Your task to perform on an android device: empty trash in google photos Image 0: 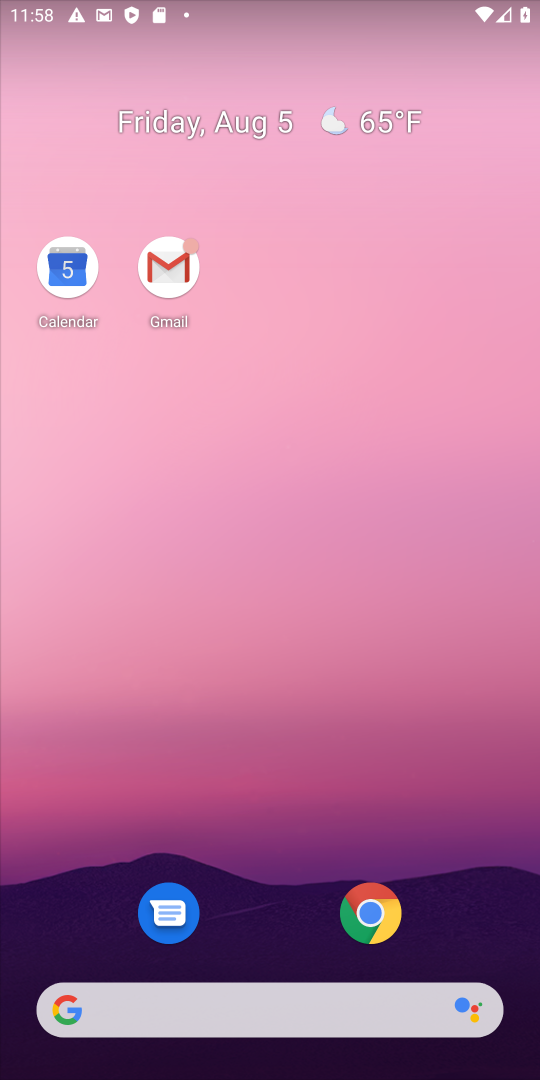
Step 0: click (490, 22)
Your task to perform on an android device: empty trash in google photos Image 1: 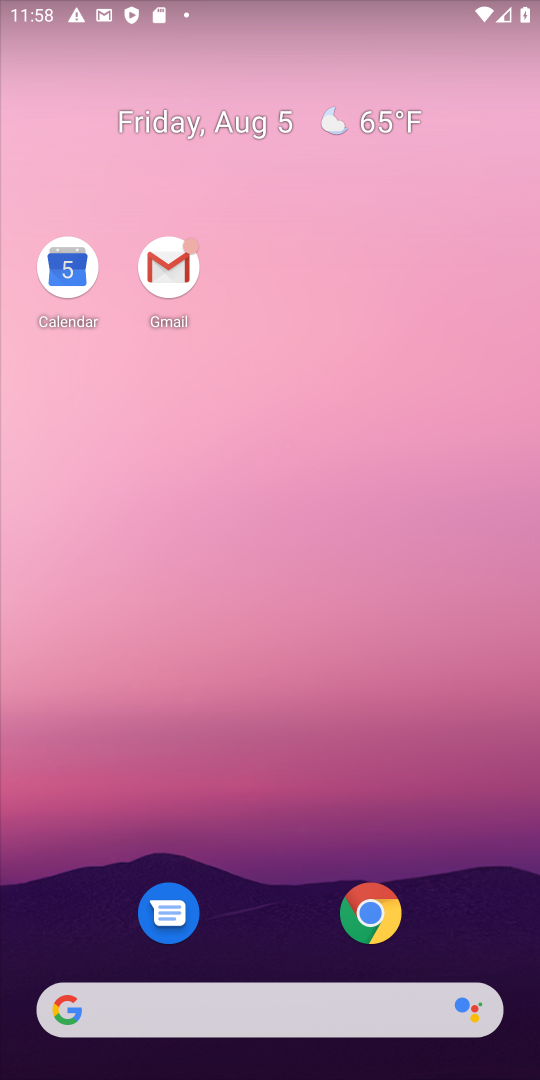
Step 1: drag from (464, 843) to (482, 71)
Your task to perform on an android device: empty trash in google photos Image 2: 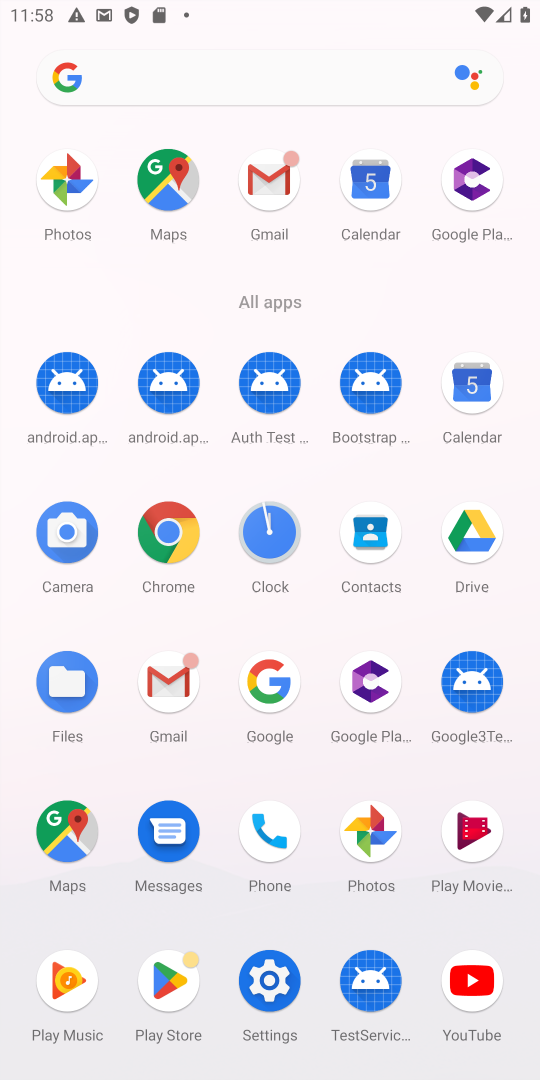
Step 2: drag from (378, 842) to (310, 304)
Your task to perform on an android device: empty trash in google photos Image 3: 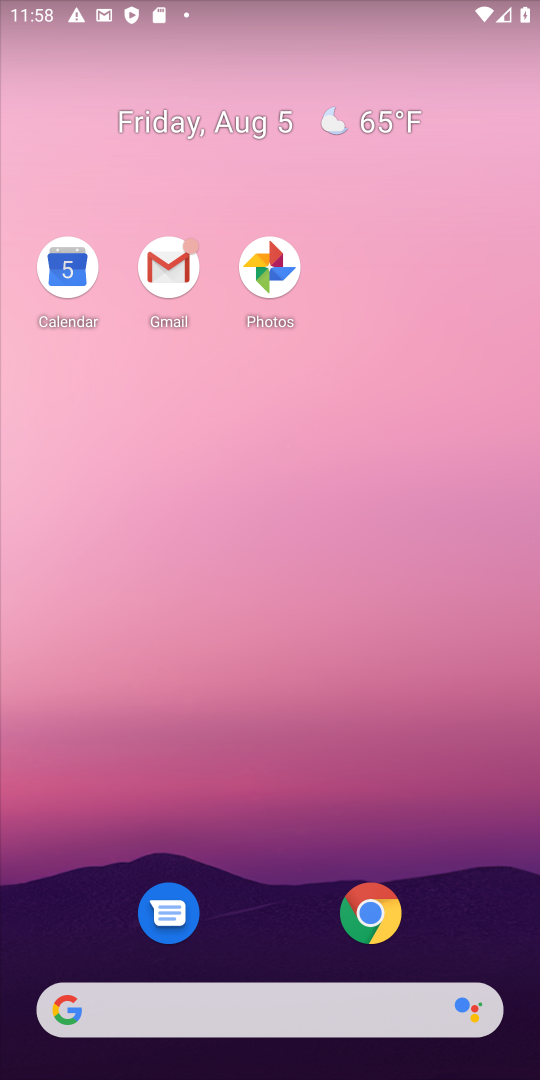
Step 3: click (285, 275)
Your task to perform on an android device: empty trash in google photos Image 4: 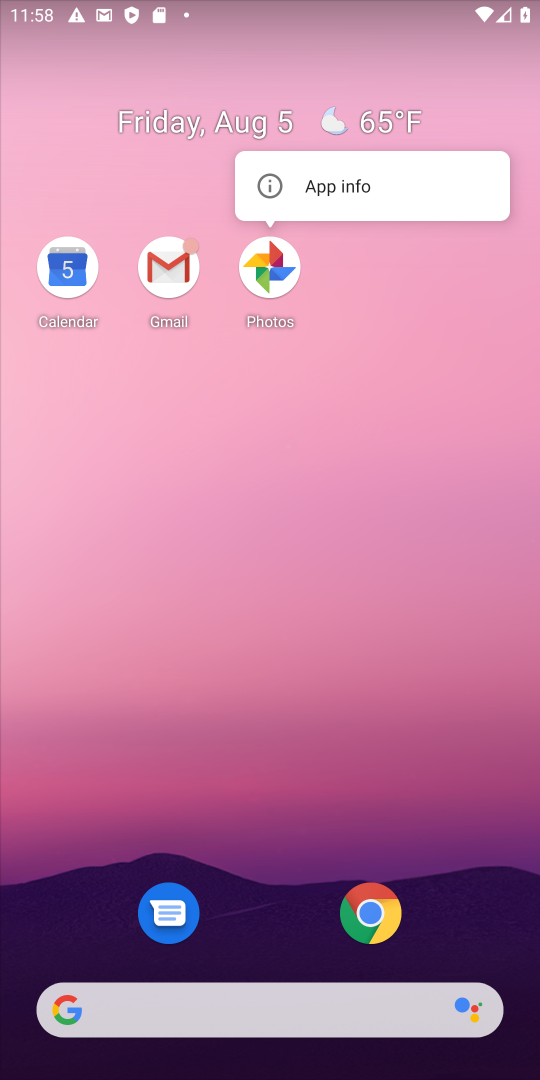
Step 4: click (285, 275)
Your task to perform on an android device: empty trash in google photos Image 5: 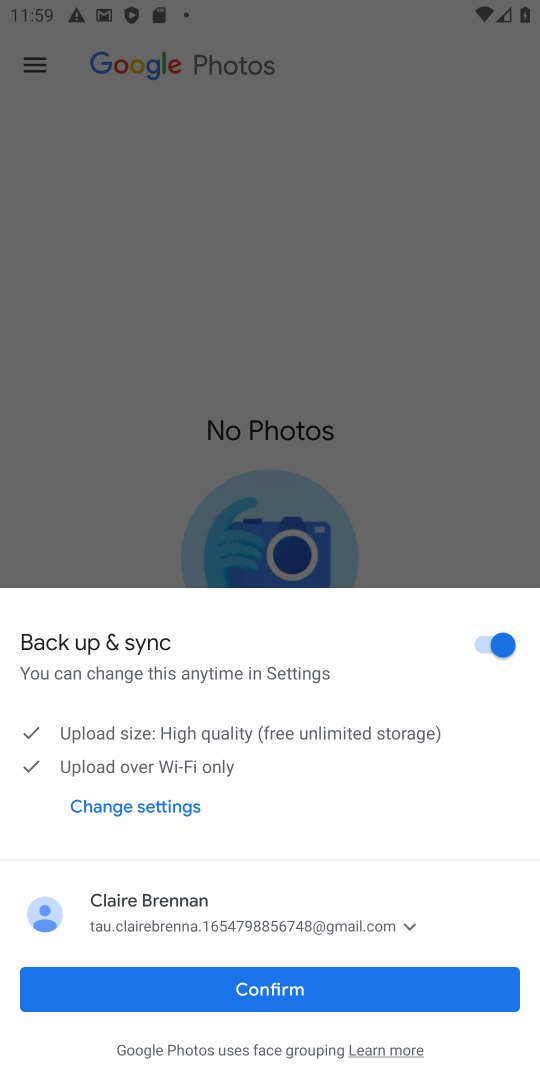
Step 5: click (204, 984)
Your task to perform on an android device: empty trash in google photos Image 6: 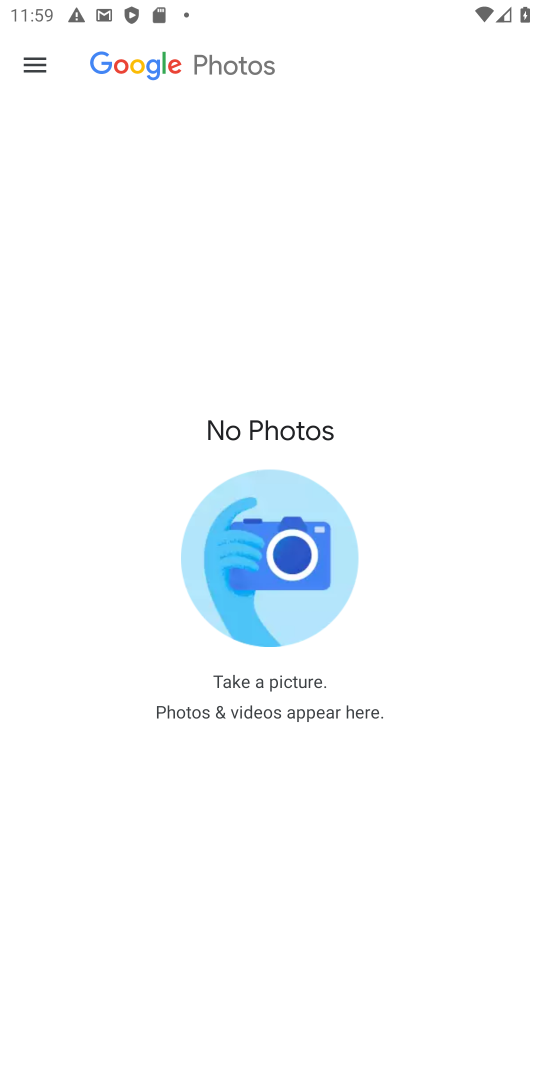
Step 6: click (23, 43)
Your task to perform on an android device: empty trash in google photos Image 7: 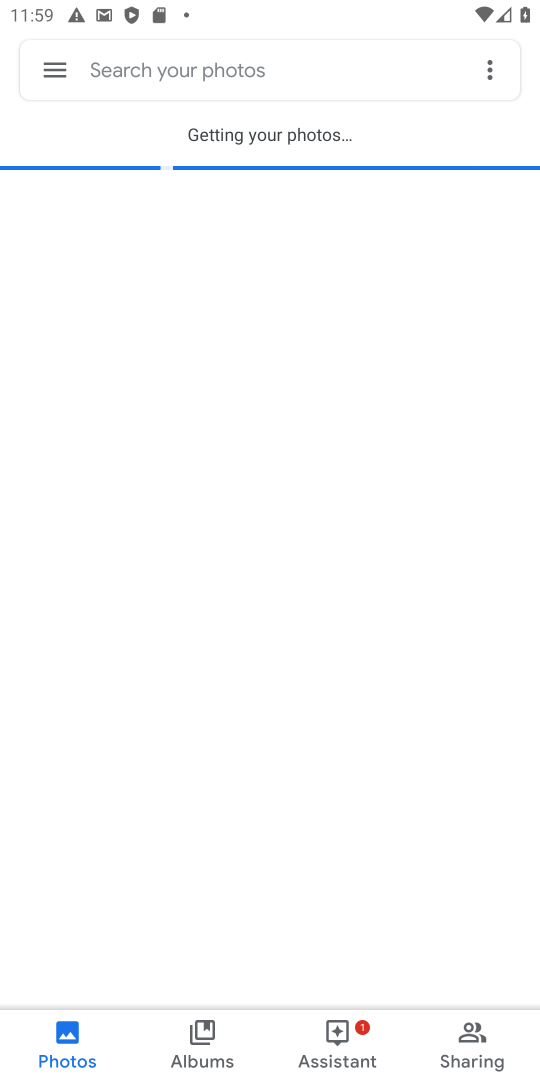
Step 7: click (50, 71)
Your task to perform on an android device: empty trash in google photos Image 8: 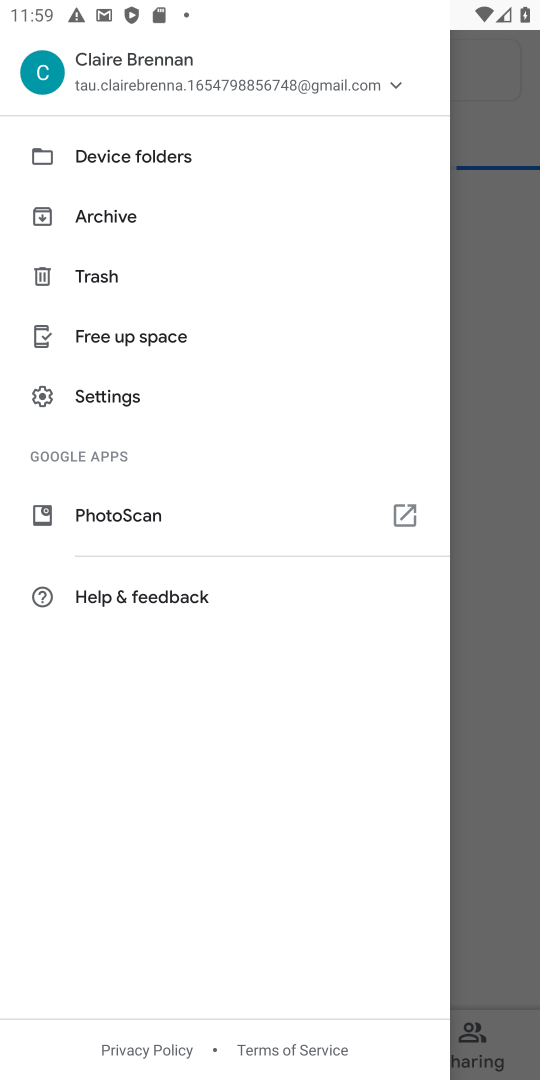
Step 8: click (99, 258)
Your task to perform on an android device: empty trash in google photos Image 9: 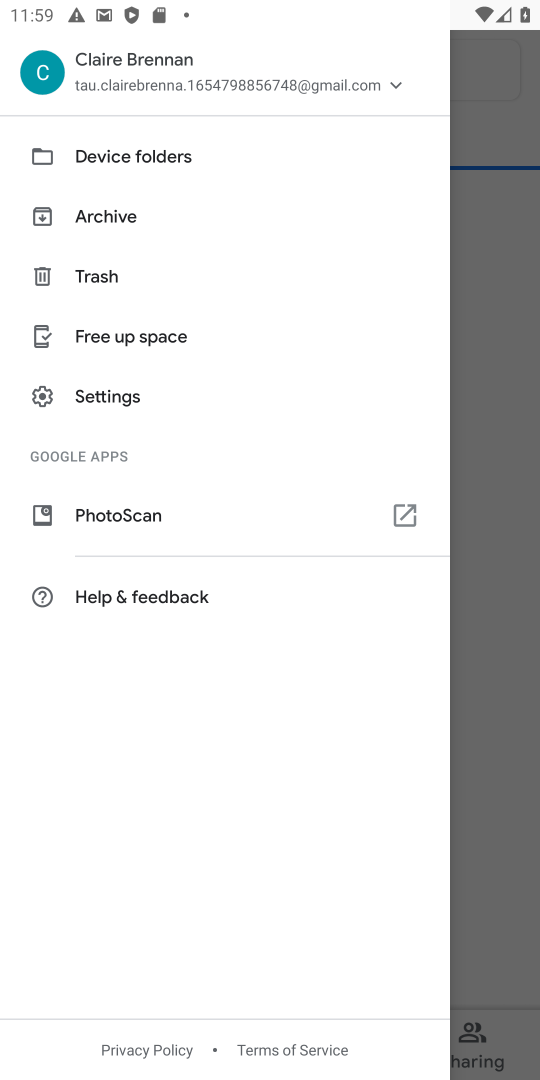
Step 9: click (110, 273)
Your task to perform on an android device: empty trash in google photos Image 10: 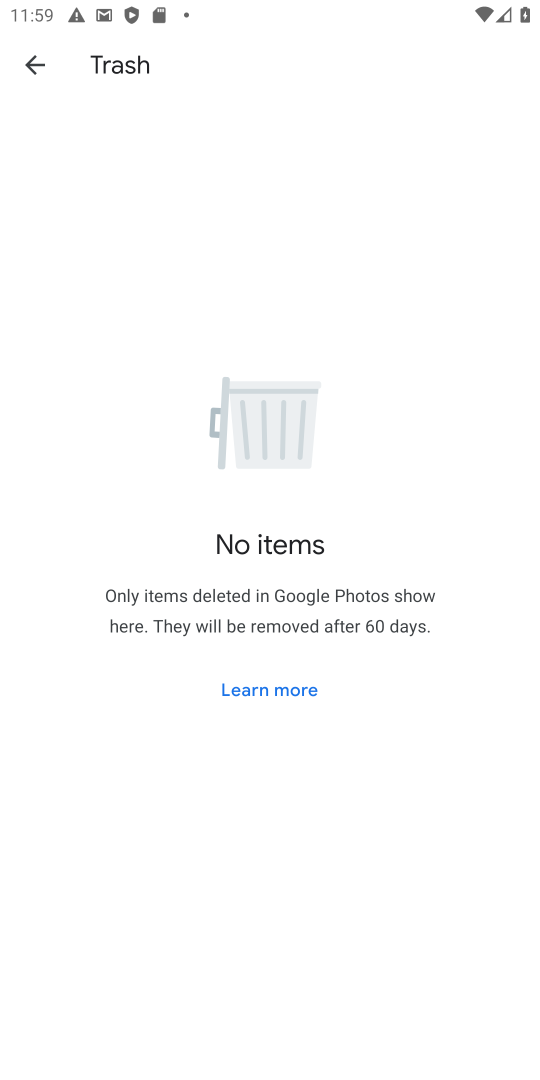
Step 10: task complete